Your task to perform on an android device: What's a good restaurant in Portland? Image 0: 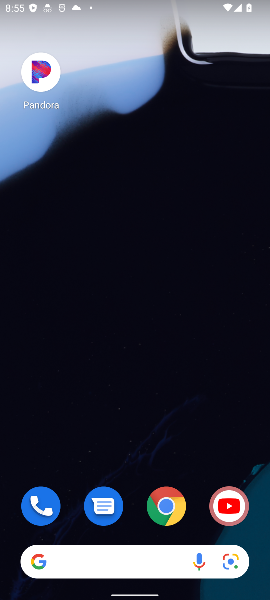
Step 0: click (170, 503)
Your task to perform on an android device: What's a good restaurant in Portland? Image 1: 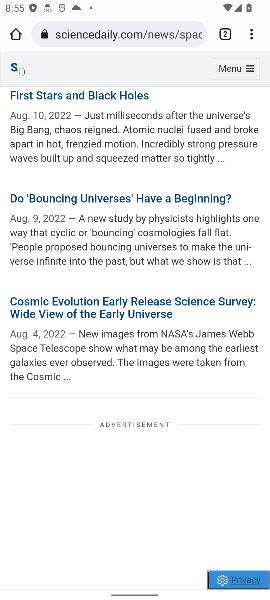
Step 1: click (164, 29)
Your task to perform on an android device: What's a good restaurant in Portland? Image 2: 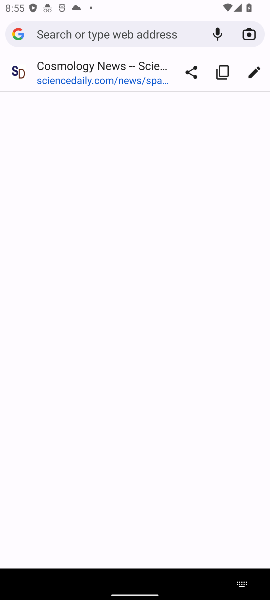
Step 2: type "good restaurant in Portland"
Your task to perform on an android device: What's a good restaurant in Portland? Image 3: 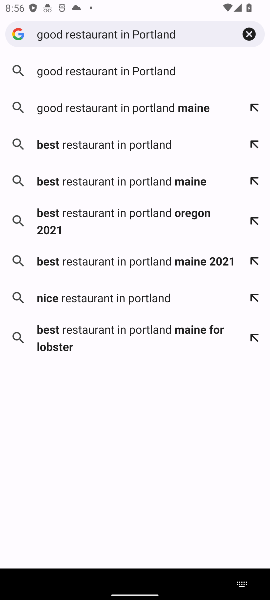
Step 3: click (133, 74)
Your task to perform on an android device: What's a good restaurant in Portland? Image 4: 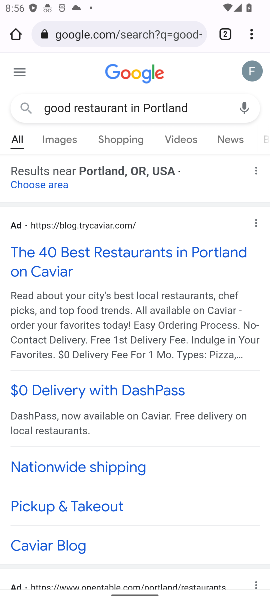
Step 4: click (121, 254)
Your task to perform on an android device: What's a good restaurant in Portland? Image 5: 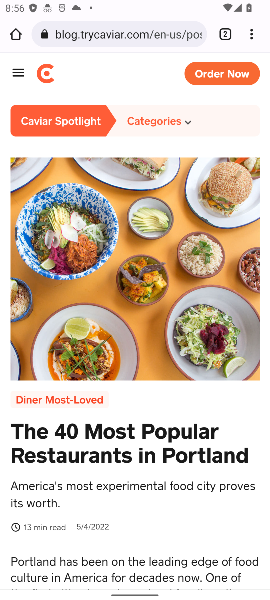
Step 5: task complete